Your task to perform on an android device: Go to Reddit.com Image 0: 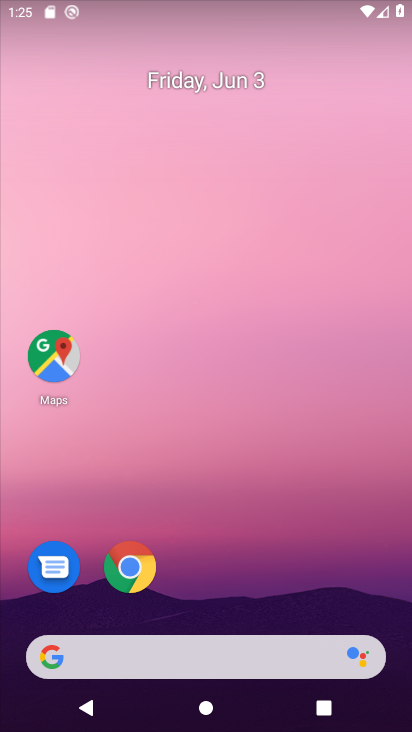
Step 0: click (131, 551)
Your task to perform on an android device: Go to Reddit.com Image 1: 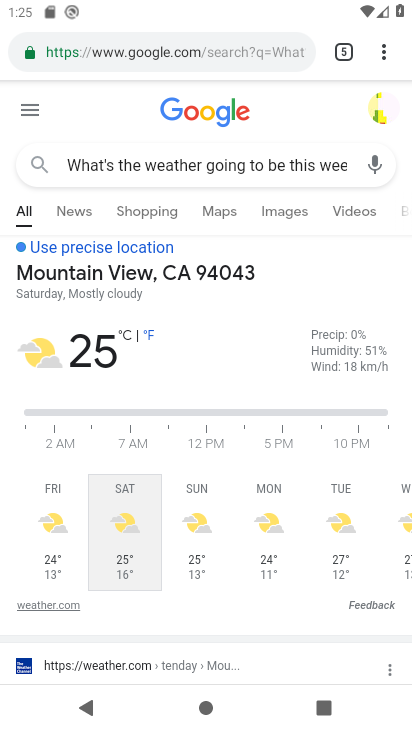
Step 1: click (385, 54)
Your task to perform on an android device: Go to Reddit.com Image 2: 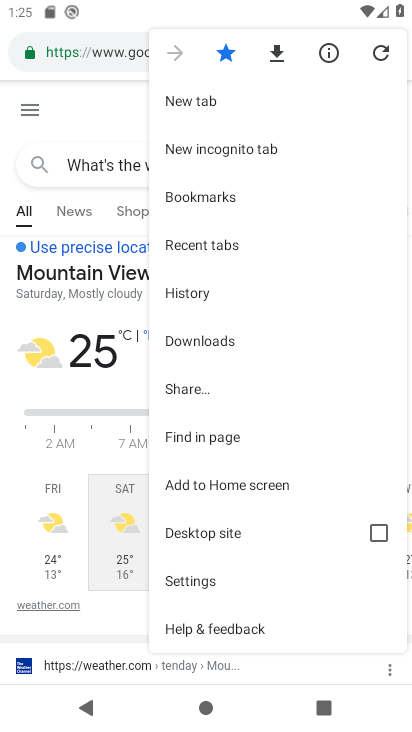
Step 2: click (206, 577)
Your task to perform on an android device: Go to Reddit.com Image 3: 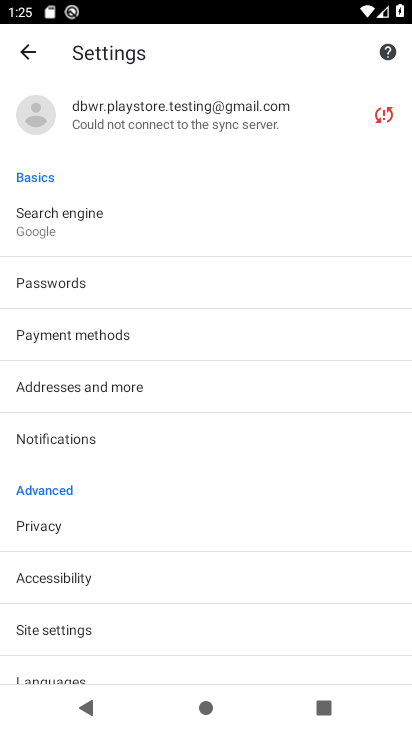
Step 3: click (29, 51)
Your task to perform on an android device: Go to Reddit.com Image 4: 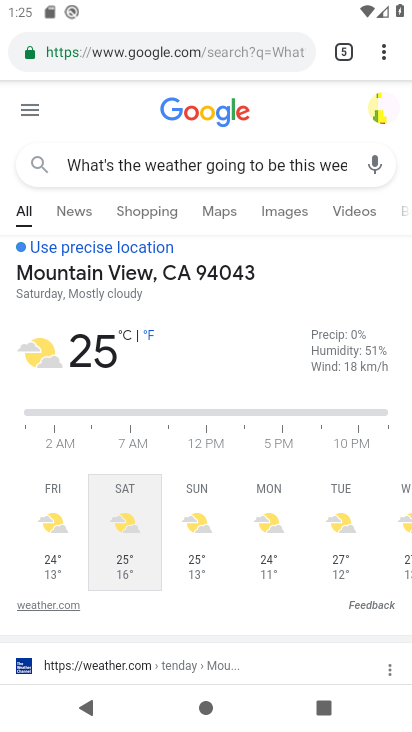
Step 4: click (383, 49)
Your task to perform on an android device: Go to Reddit.com Image 5: 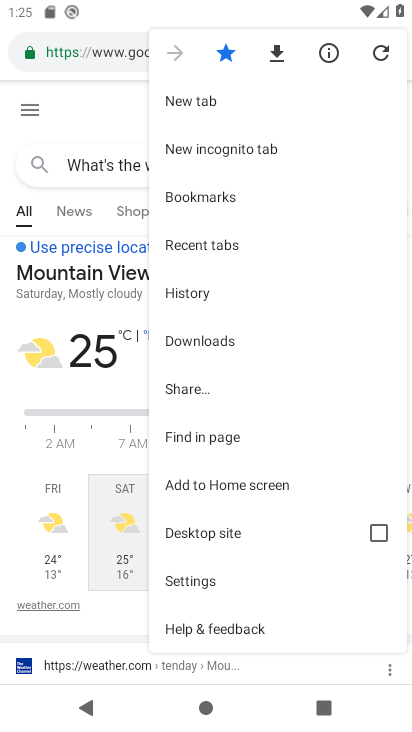
Step 5: click (199, 89)
Your task to perform on an android device: Go to Reddit.com Image 6: 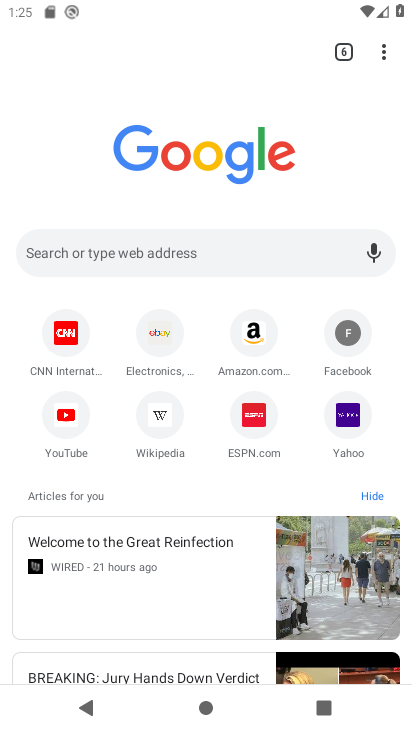
Step 6: click (225, 233)
Your task to perform on an android device: Go to Reddit.com Image 7: 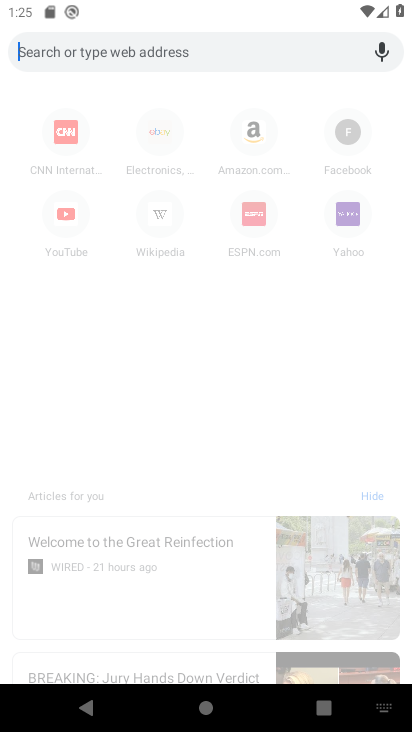
Step 7: type " Reddit.com"
Your task to perform on an android device: Go to Reddit.com Image 8: 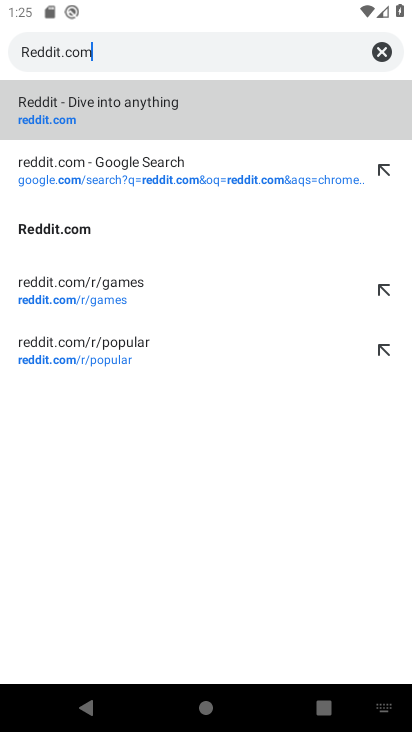
Step 8: click (134, 92)
Your task to perform on an android device: Go to Reddit.com Image 9: 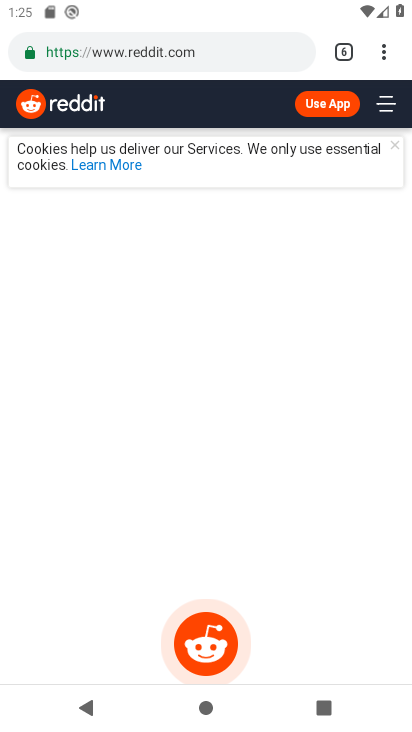
Step 9: task complete